Your task to perform on an android device: turn on javascript in the chrome app Image 0: 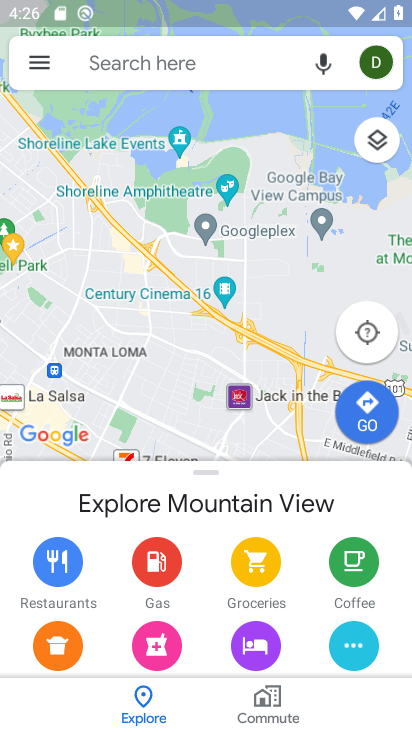
Step 0: press home button
Your task to perform on an android device: turn on javascript in the chrome app Image 1: 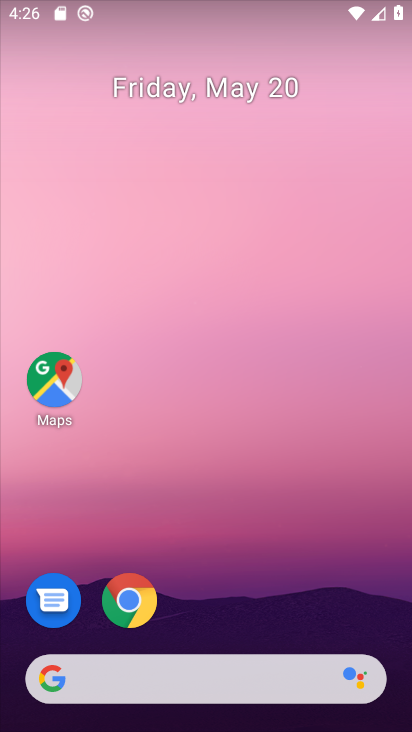
Step 1: drag from (271, 413) to (138, 51)
Your task to perform on an android device: turn on javascript in the chrome app Image 2: 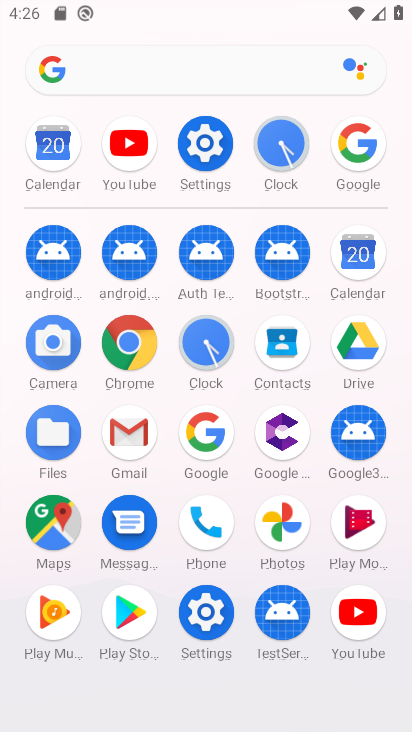
Step 2: click (134, 352)
Your task to perform on an android device: turn on javascript in the chrome app Image 3: 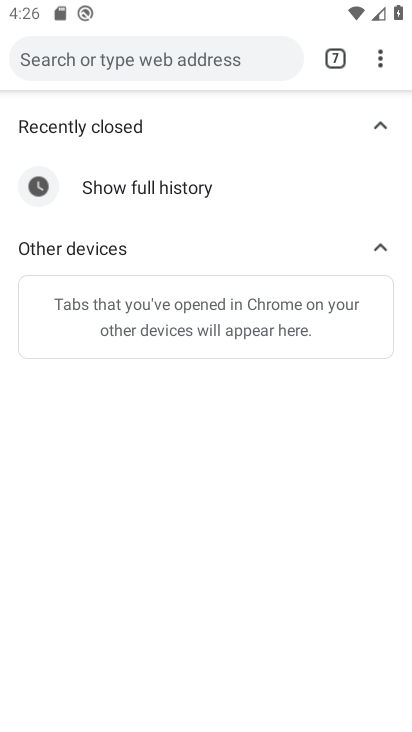
Step 3: click (375, 45)
Your task to perform on an android device: turn on javascript in the chrome app Image 4: 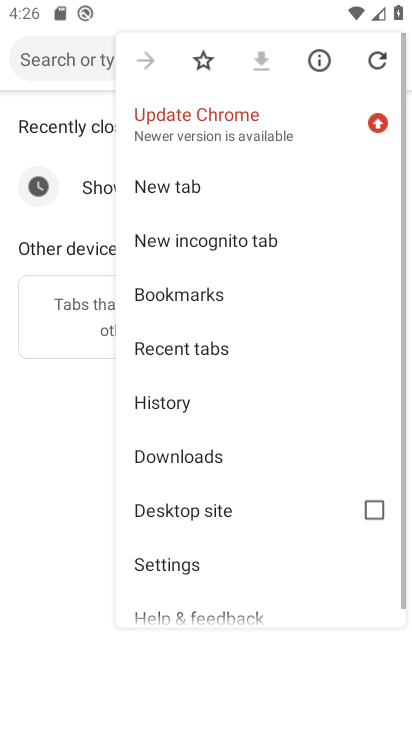
Step 4: drag from (249, 526) to (239, 331)
Your task to perform on an android device: turn on javascript in the chrome app Image 5: 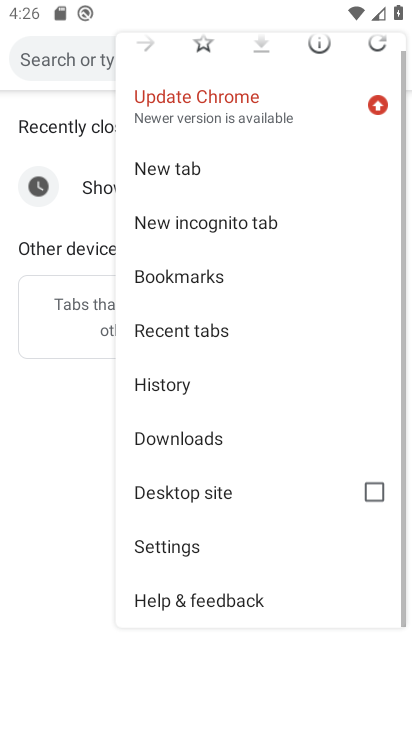
Step 5: click (212, 537)
Your task to perform on an android device: turn on javascript in the chrome app Image 6: 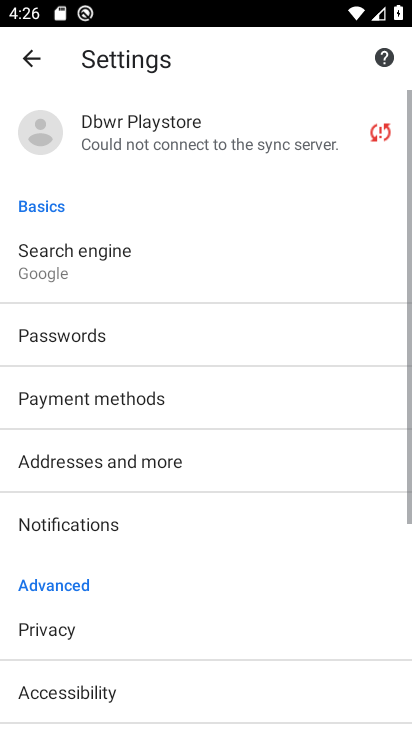
Step 6: drag from (228, 587) to (230, 182)
Your task to perform on an android device: turn on javascript in the chrome app Image 7: 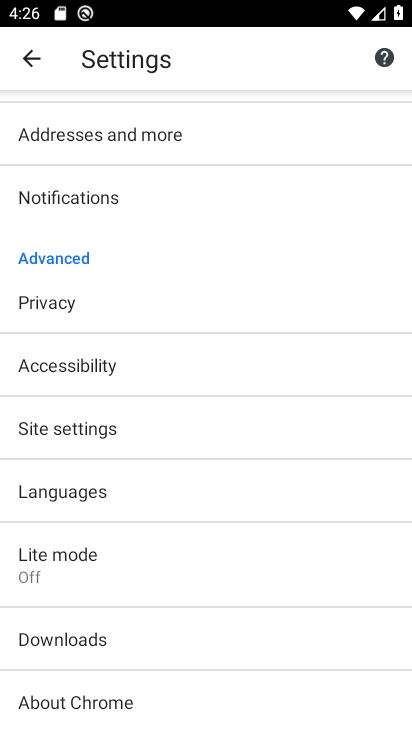
Step 7: drag from (227, 567) to (209, 258)
Your task to perform on an android device: turn on javascript in the chrome app Image 8: 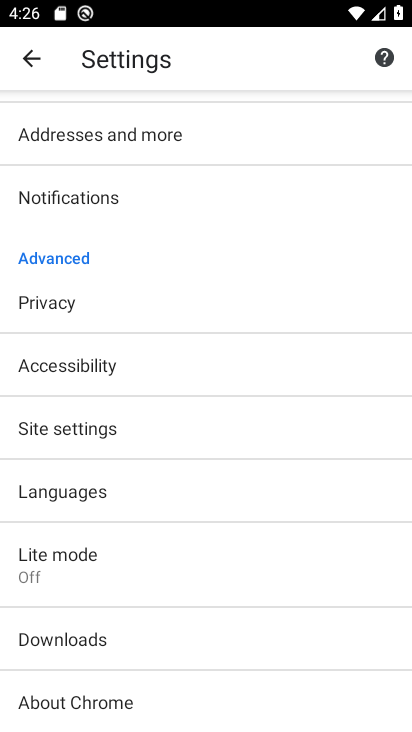
Step 8: click (159, 431)
Your task to perform on an android device: turn on javascript in the chrome app Image 9: 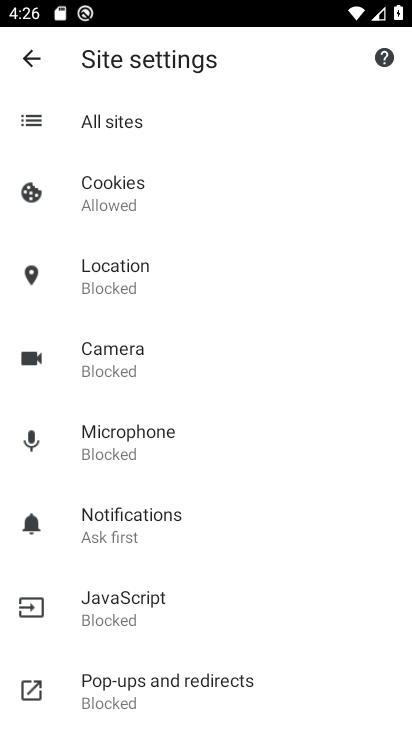
Step 9: click (174, 605)
Your task to perform on an android device: turn on javascript in the chrome app Image 10: 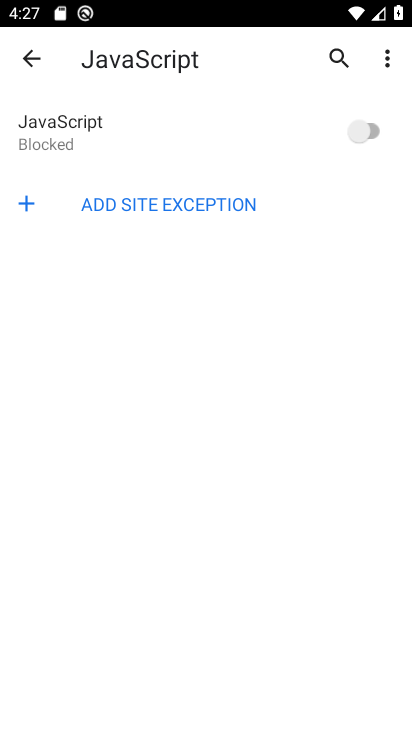
Step 10: click (362, 126)
Your task to perform on an android device: turn on javascript in the chrome app Image 11: 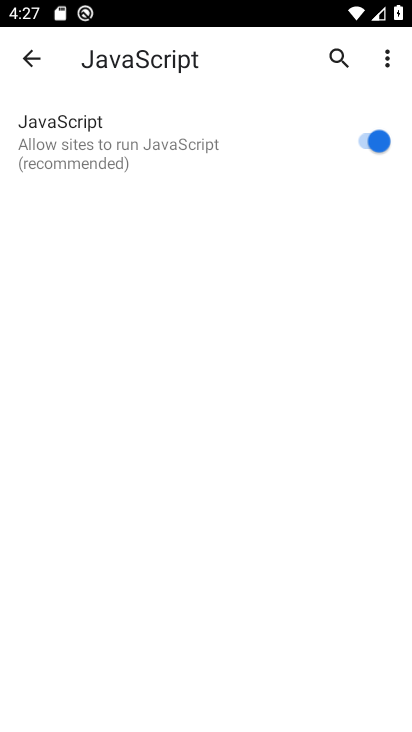
Step 11: task complete